Your task to perform on an android device: Go to display settings Image 0: 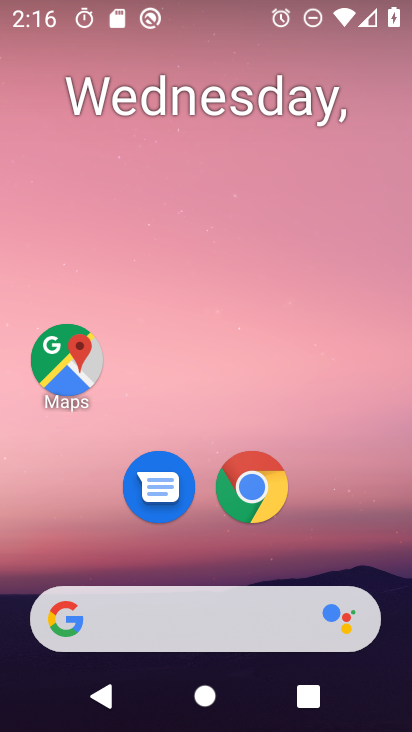
Step 0: drag from (178, 599) to (331, 62)
Your task to perform on an android device: Go to display settings Image 1: 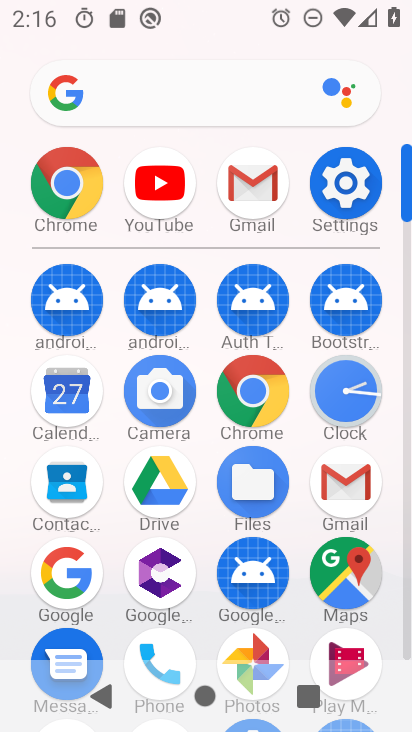
Step 1: click (338, 180)
Your task to perform on an android device: Go to display settings Image 2: 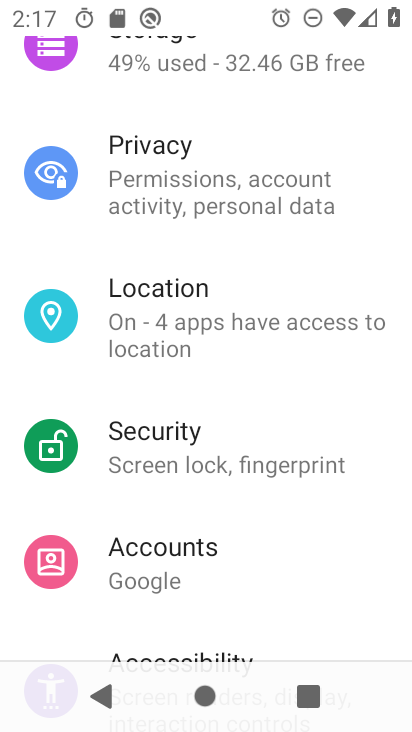
Step 2: drag from (264, 239) to (219, 598)
Your task to perform on an android device: Go to display settings Image 3: 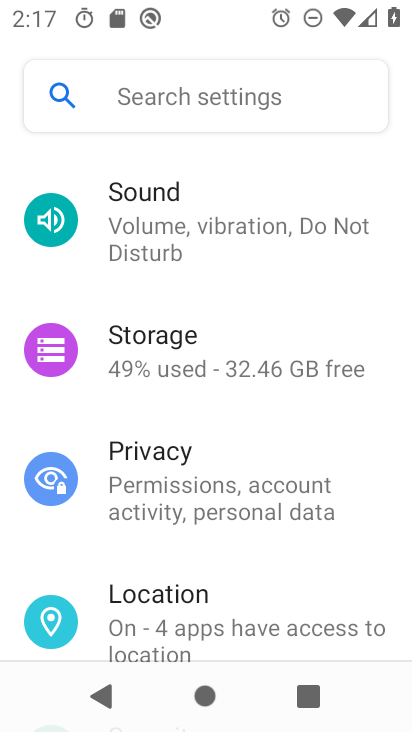
Step 3: drag from (203, 595) to (307, 59)
Your task to perform on an android device: Go to display settings Image 4: 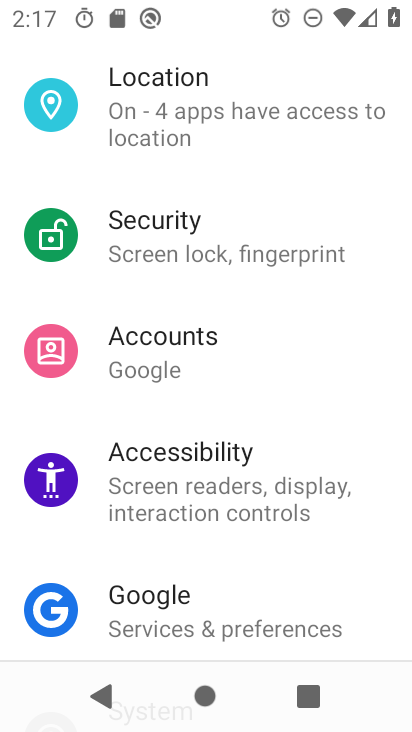
Step 4: drag from (209, 584) to (338, 6)
Your task to perform on an android device: Go to display settings Image 5: 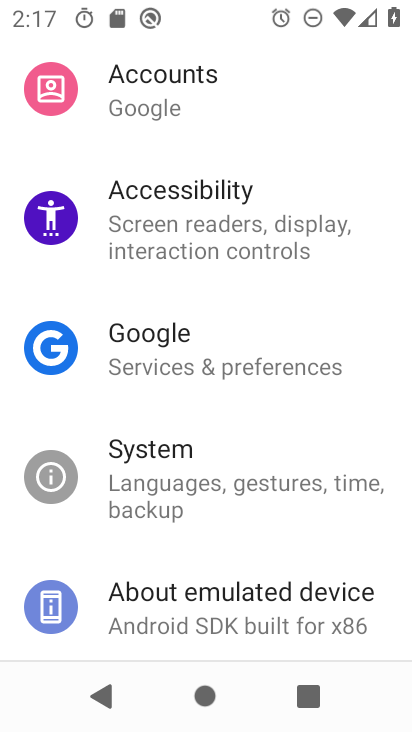
Step 5: drag from (221, 174) to (254, 731)
Your task to perform on an android device: Go to display settings Image 6: 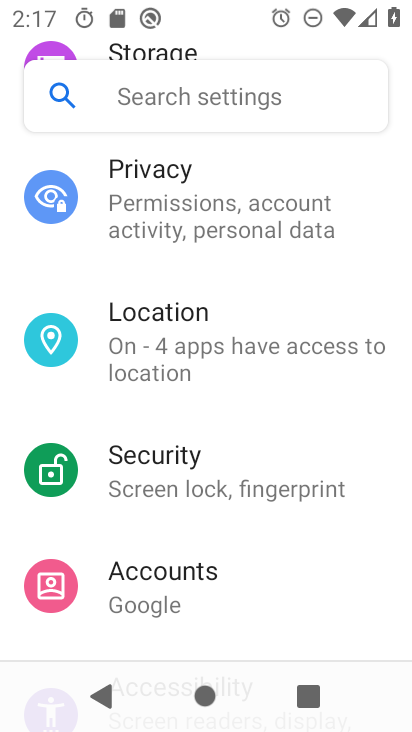
Step 6: drag from (237, 318) to (193, 699)
Your task to perform on an android device: Go to display settings Image 7: 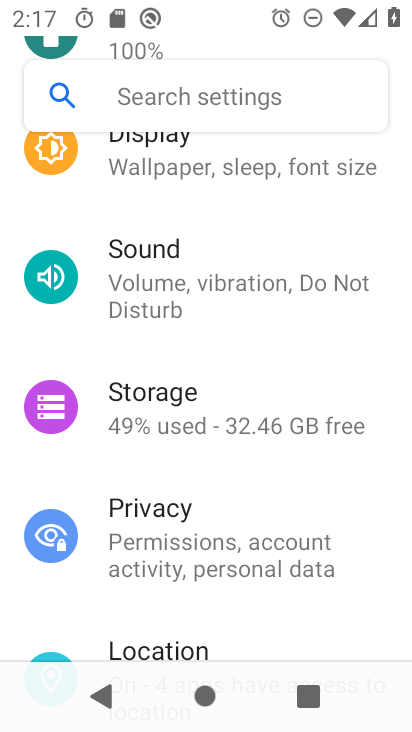
Step 7: click (185, 139)
Your task to perform on an android device: Go to display settings Image 8: 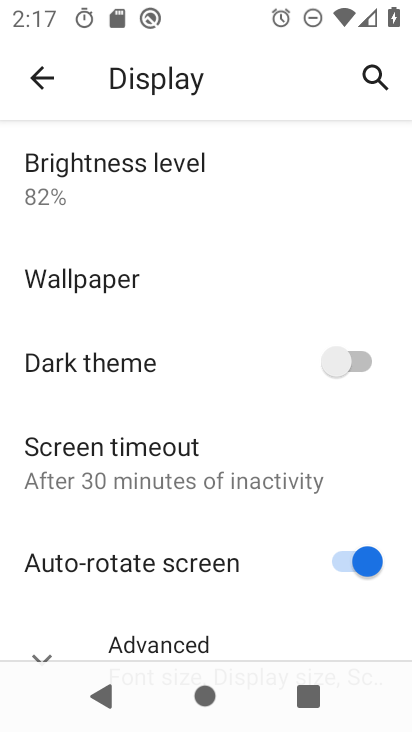
Step 8: task complete